Your task to perform on an android device: change timer sound Image 0: 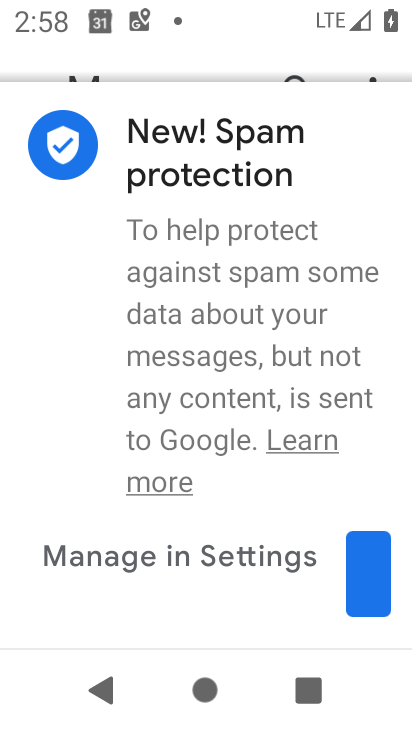
Step 0: press home button
Your task to perform on an android device: change timer sound Image 1: 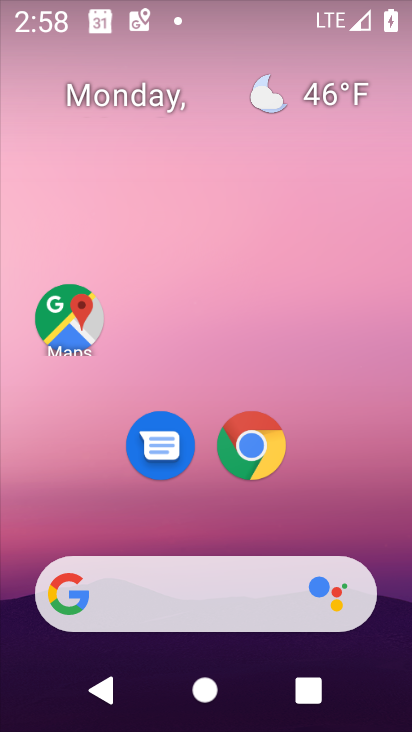
Step 1: drag from (291, 503) to (321, 137)
Your task to perform on an android device: change timer sound Image 2: 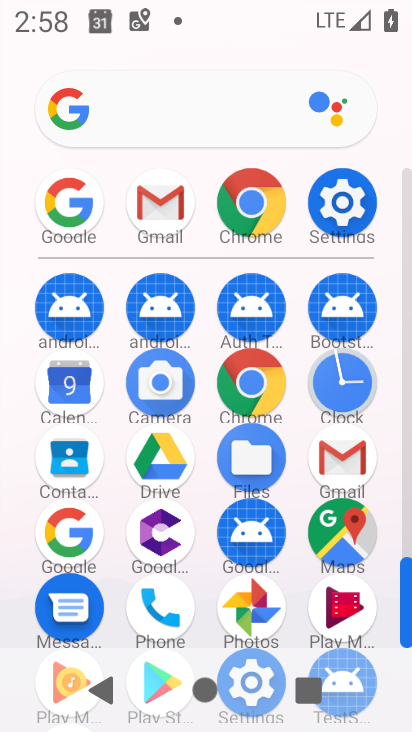
Step 2: click (353, 389)
Your task to perform on an android device: change timer sound Image 3: 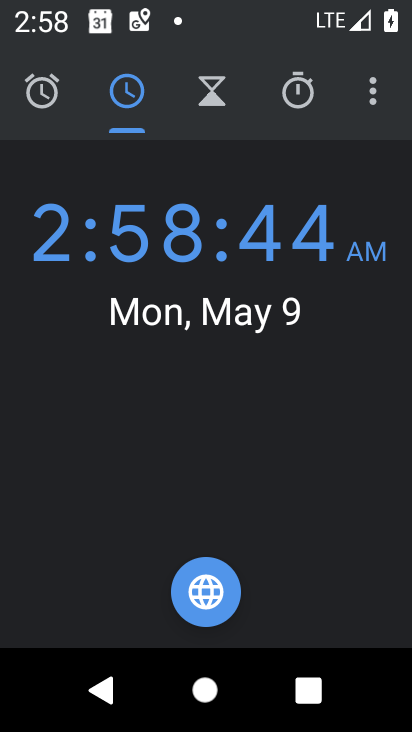
Step 3: click (369, 97)
Your task to perform on an android device: change timer sound Image 4: 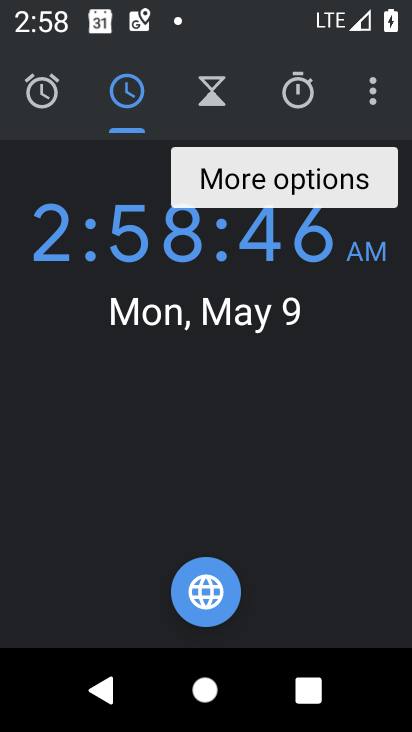
Step 4: click (373, 90)
Your task to perform on an android device: change timer sound Image 5: 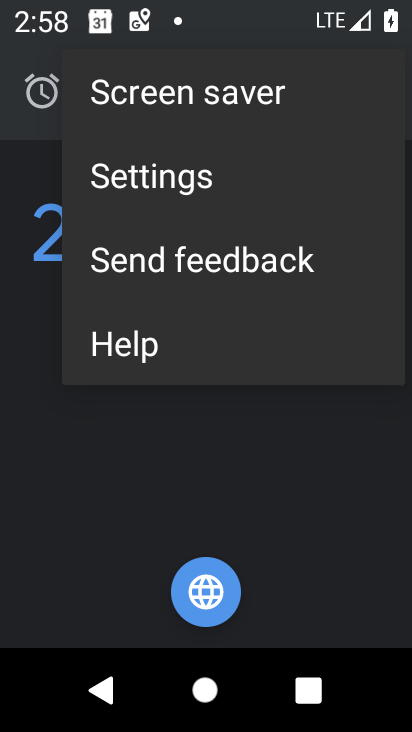
Step 5: click (212, 175)
Your task to perform on an android device: change timer sound Image 6: 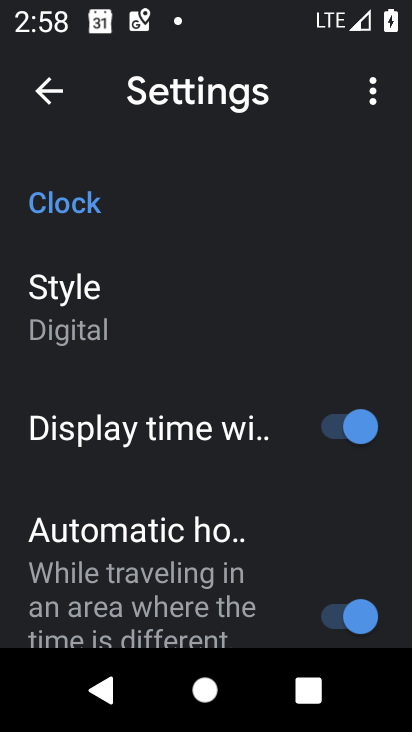
Step 6: drag from (233, 568) to (234, 218)
Your task to perform on an android device: change timer sound Image 7: 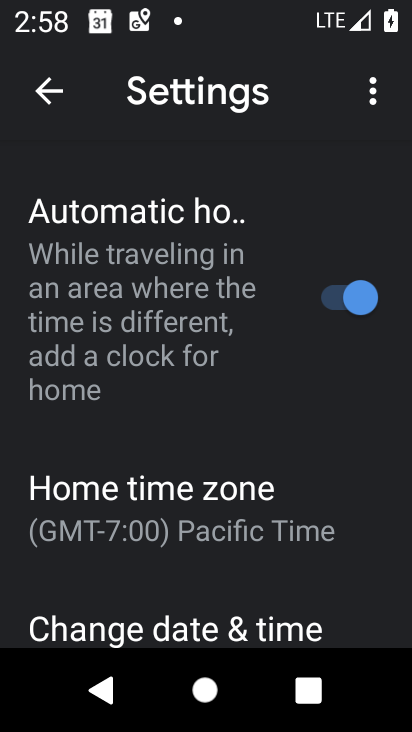
Step 7: drag from (205, 517) to (203, 329)
Your task to perform on an android device: change timer sound Image 8: 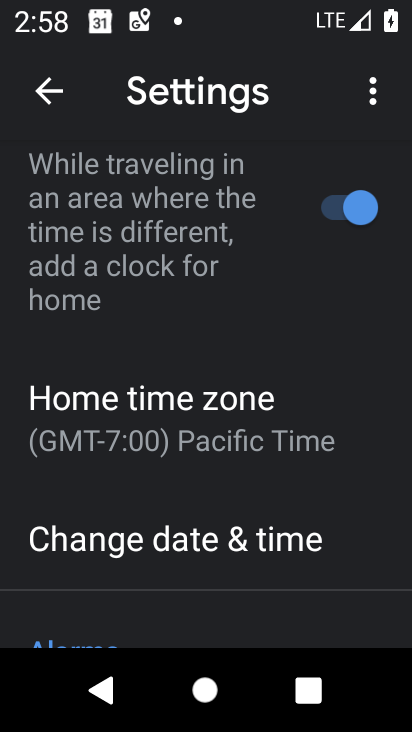
Step 8: drag from (228, 599) to (229, 244)
Your task to perform on an android device: change timer sound Image 9: 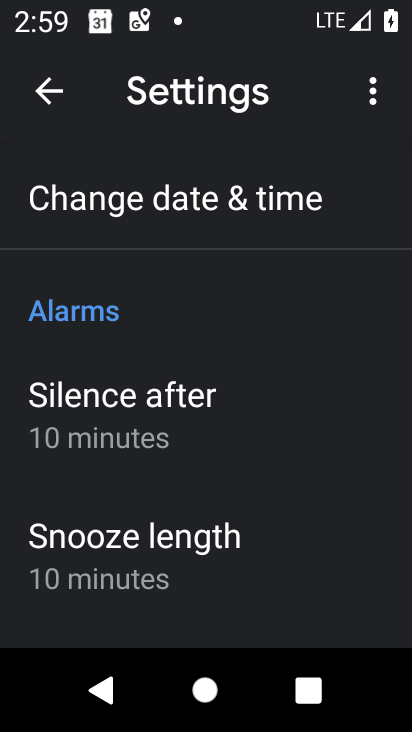
Step 9: drag from (215, 505) to (219, 229)
Your task to perform on an android device: change timer sound Image 10: 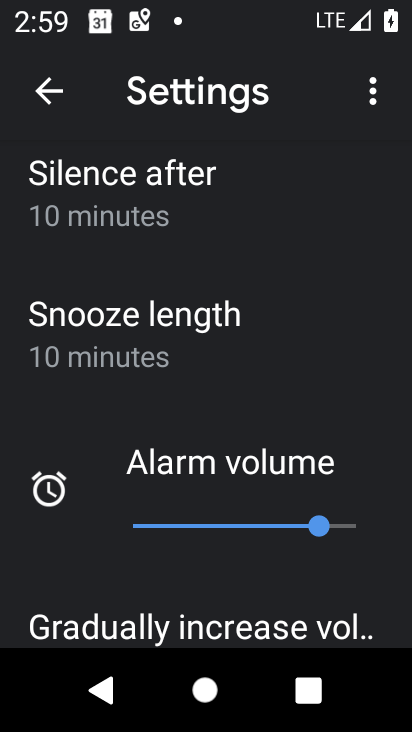
Step 10: drag from (183, 584) to (230, 160)
Your task to perform on an android device: change timer sound Image 11: 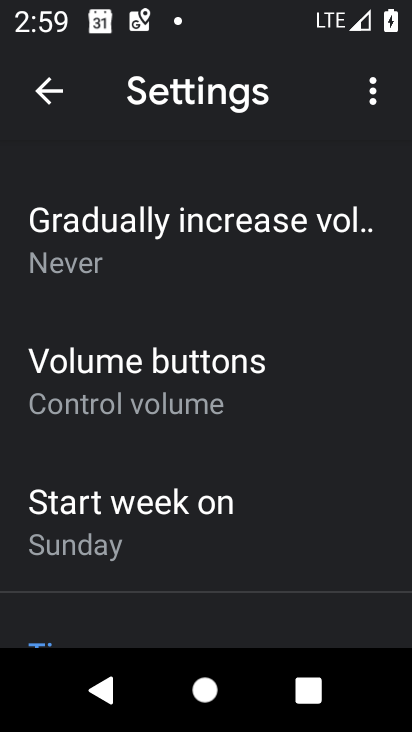
Step 11: drag from (247, 566) to (266, 298)
Your task to perform on an android device: change timer sound Image 12: 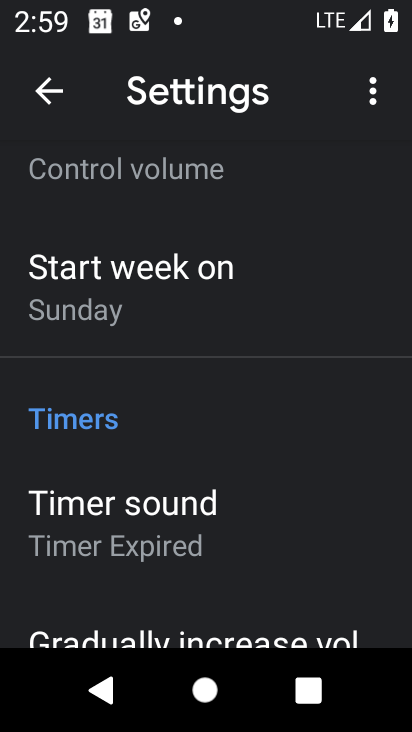
Step 12: click (229, 545)
Your task to perform on an android device: change timer sound Image 13: 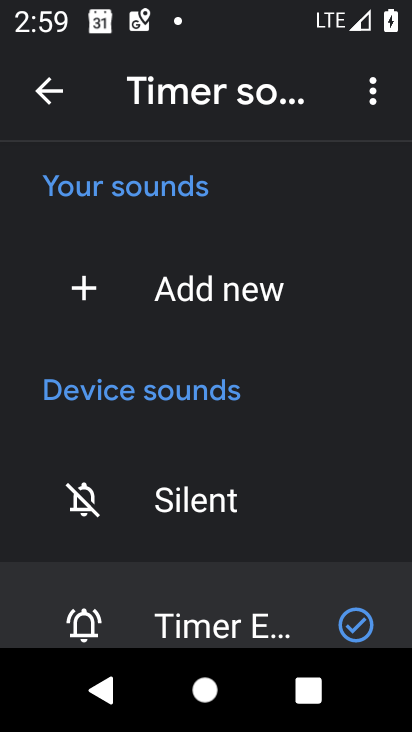
Step 13: drag from (223, 492) to (218, 207)
Your task to perform on an android device: change timer sound Image 14: 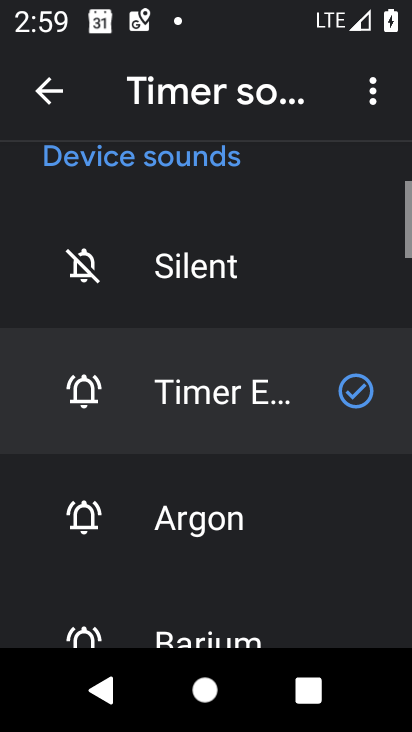
Step 14: click (179, 520)
Your task to perform on an android device: change timer sound Image 15: 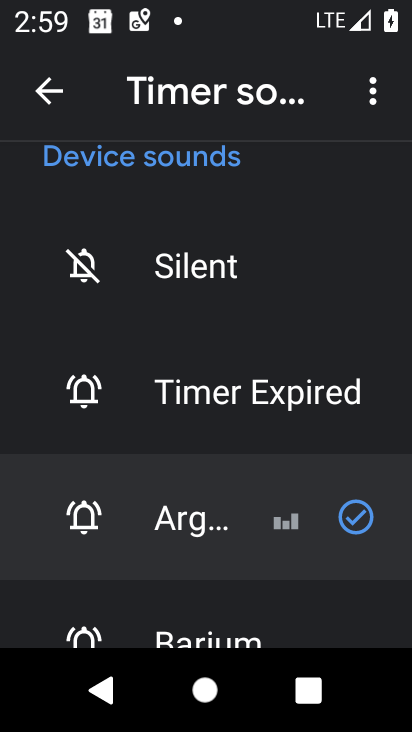
Step 15: task complete